Your task to perform on an android device: Open battery settings Image 0: 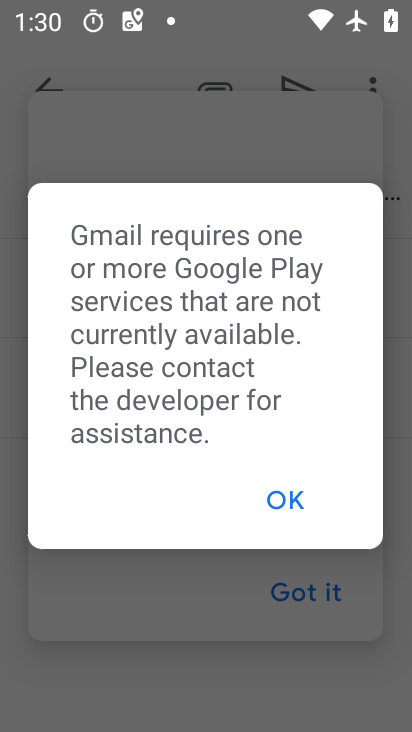
Step 0: press home button
Your task to perform on an android device: Open battery settings Image 1: 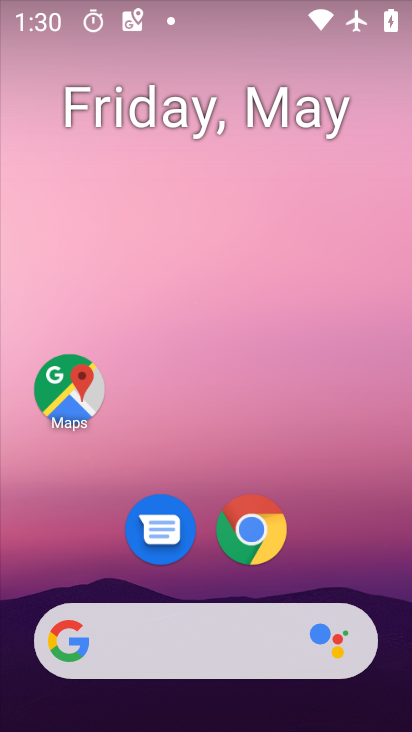
Step 1: drag from (182, 653) to (340, 13)
Your task to perform on an android device: Open battery settings Image 2: 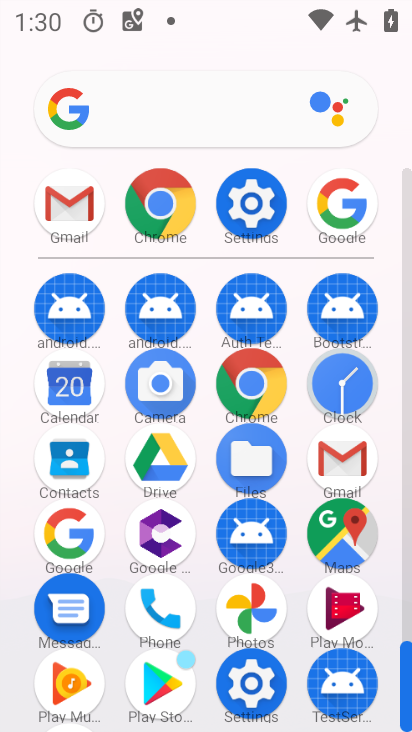
Step 2: click (262, 227)
Your task to perform on an android device: Open battery settings Image 3: 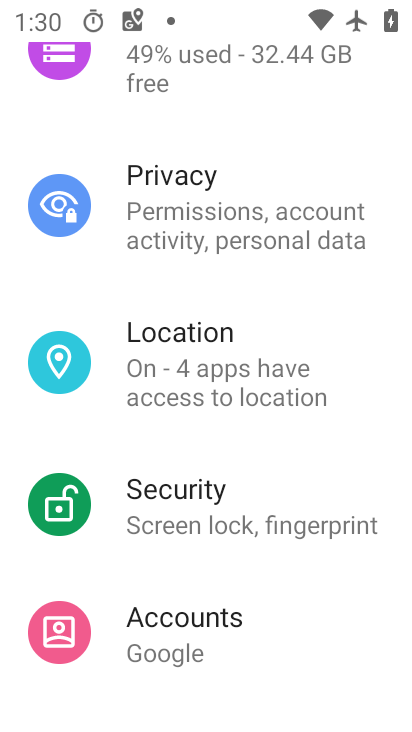
Step 3: drag from (180, 509) to (200, 206)
Your task to perform on an android device: Open battery settings Image 4: 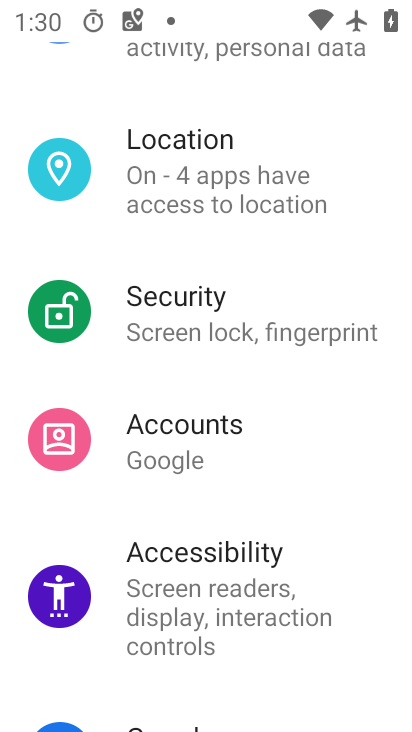
Step 4: drag from (200, 170) to (175, 723)
Your task to perform on an android device: Open battery settings Image 5: 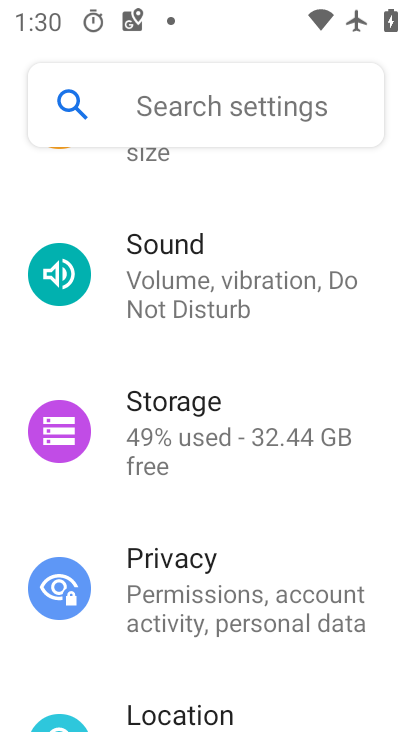
Step 5: drag from (207, 323) to (230, 731)
Your task to perform on an android device: Open battery settings Image 6: 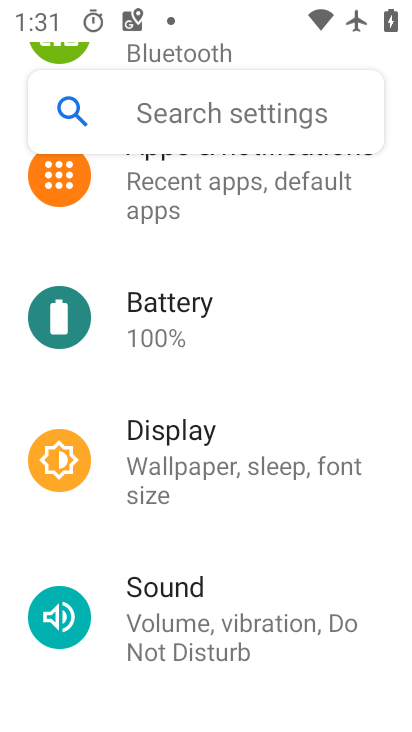
Step 6: drag from (233, 389) to (244, 649)
Your task to perform on an android device: Open battery settings Image 7: 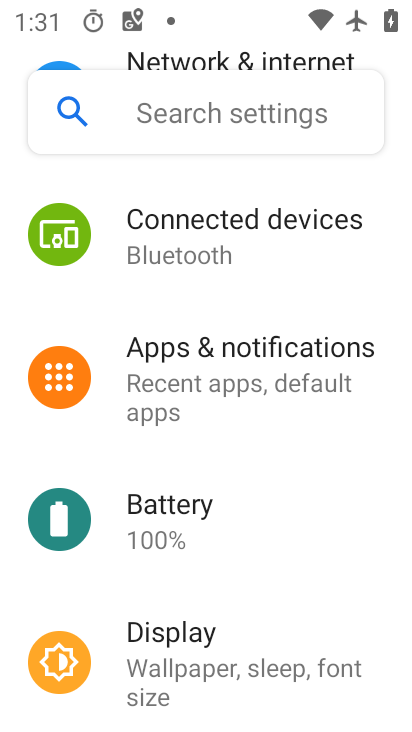
Step 7: click (216, 516)
Your task to perform on an android device: Open battery settings Image 8: 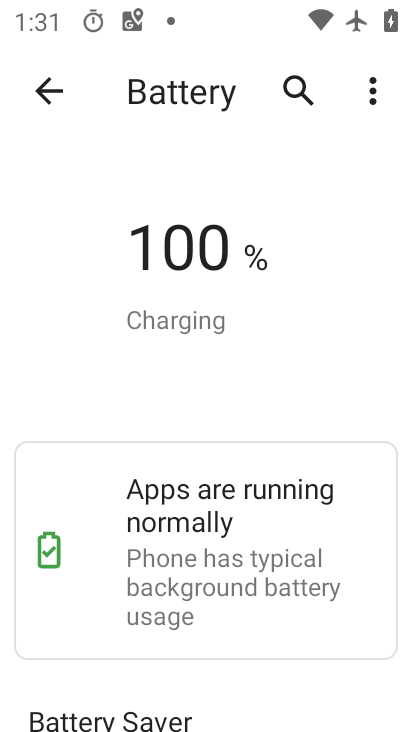
Step 8: task complete